Your task to perform on an android device: delete a single message in the gmail app Image 0: 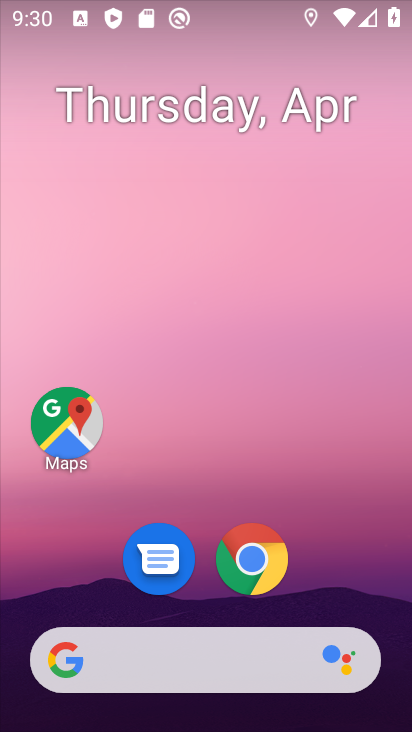
Step 0: drag from (259, 723) to (257, 143)
Your task to perform on an android device: delete a single message in the gmail app Image 1: 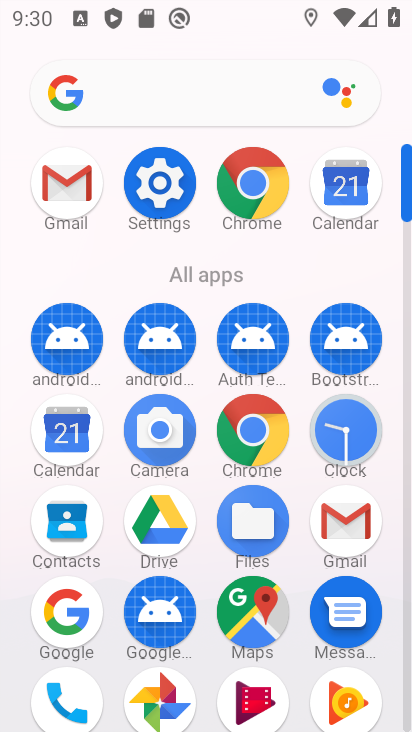
Step 1: click (71, 187)
Your task to perform on an android device: delete a single message in the gmail app Image 2: 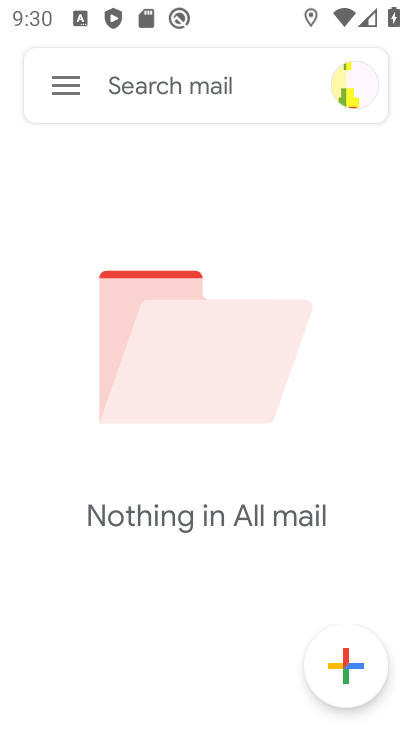
Step 2: task complete